Your task to perform on an android device: open chrome privacy settings Image 0: 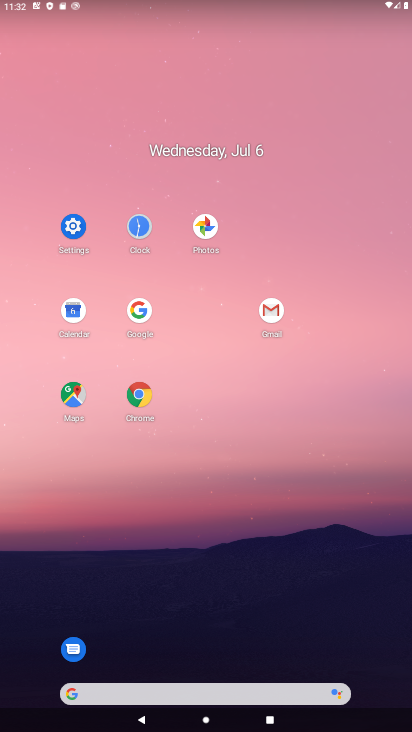
Step 0: click (128, 385)
Your task to perform on an android device: open chrome privacy settings Image 1: 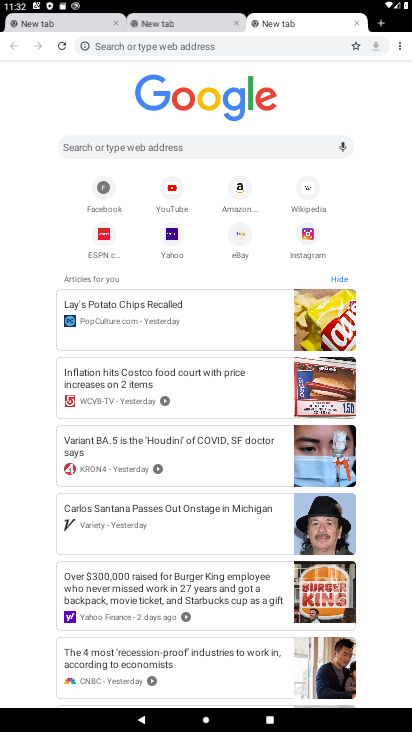
Step 1: click (398, 46)
Your task to perform on an android device: open chrome privacy settings Image 2: 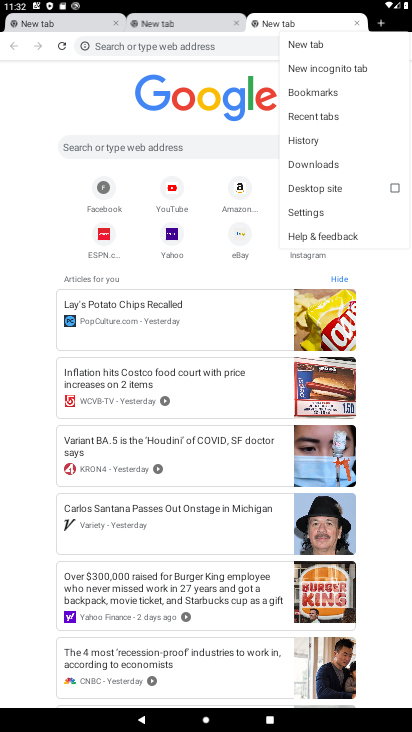
Step 2: click (302, 214)
Your task to perform on an android device: open chrome privacy settings Image 3: 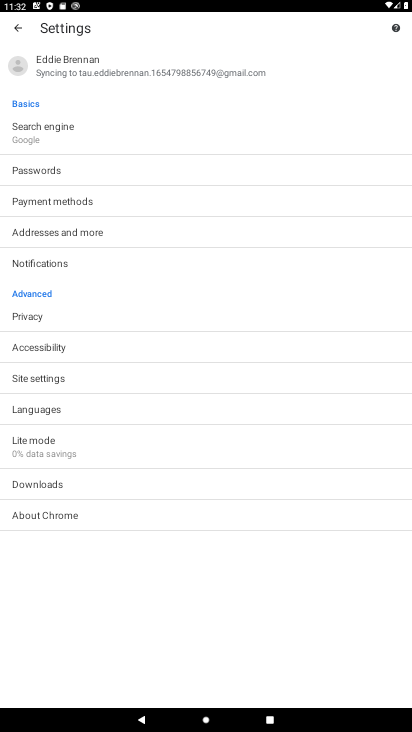
Step 3: click (71, 319)
Your task to perform on an android device: open chrome privacy settings Image 4: 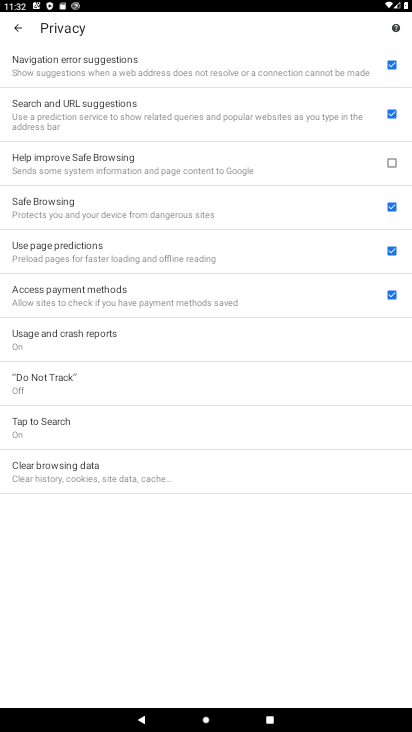
Step 4: task complete